Your task to perform on an android device: Go to network settings Image 0: 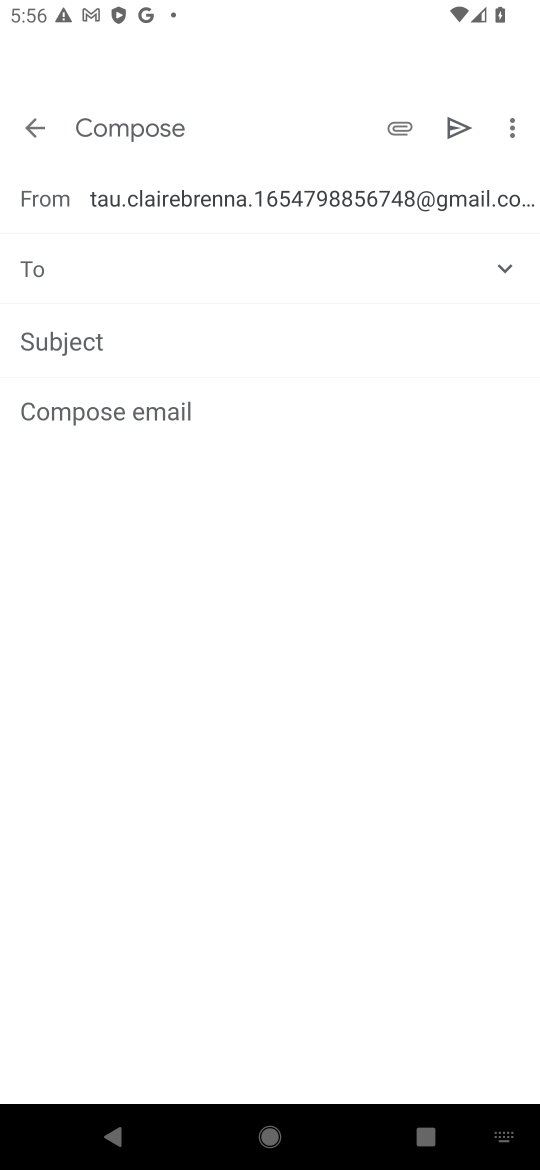
Step 0: press home button
Your task to perform on an android device: Go to network settings Image 1: 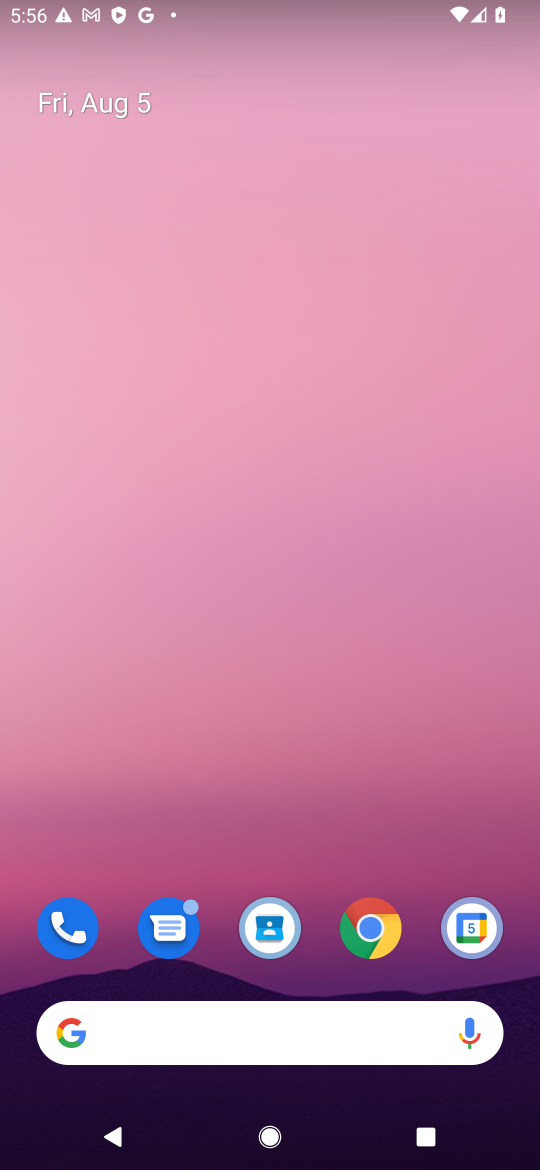
Step 1: drag from (238, 984) to (507, 978)
Your task to perform on an android device: Go to network settings Image 2: 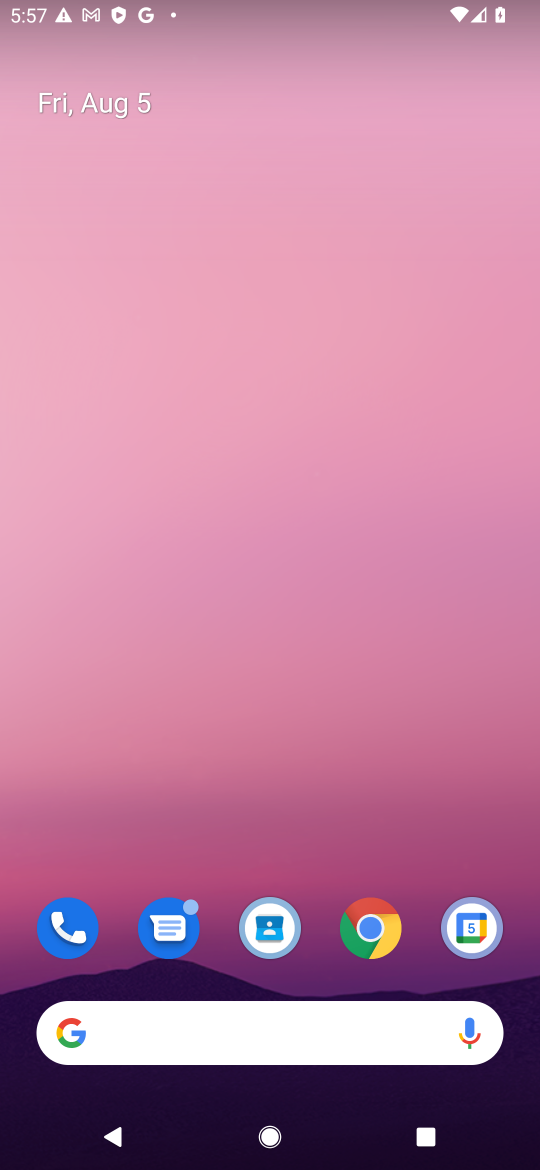
Step 2: drag from (282, 973) to (437, 7)
Your task to perform on an android device: Go to network settings Image 3: 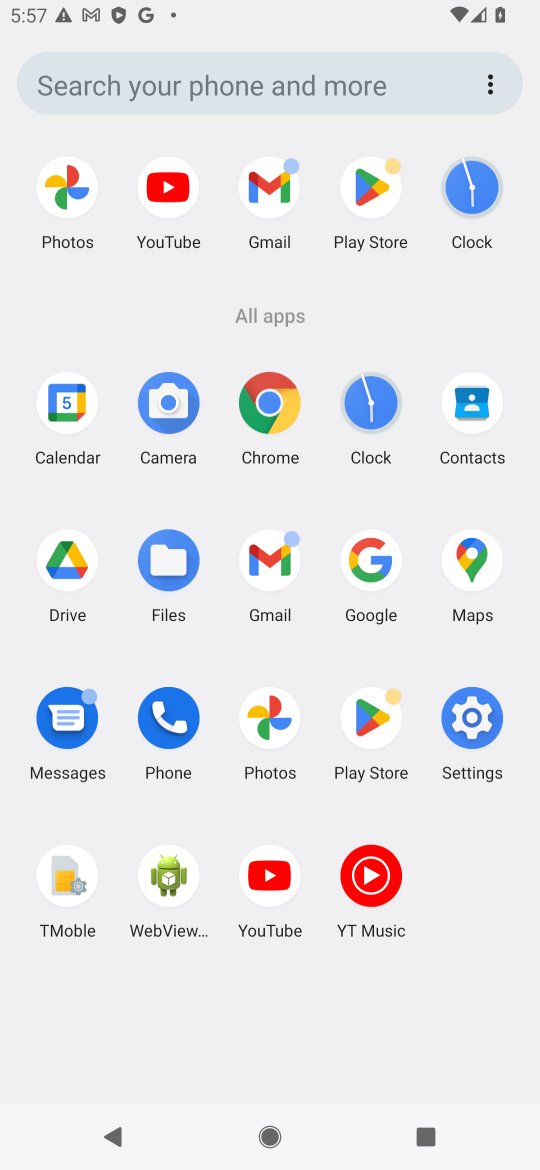
Step 3: click (453, 748)
Your task to perform on an android device: Go to network settings Image 4: 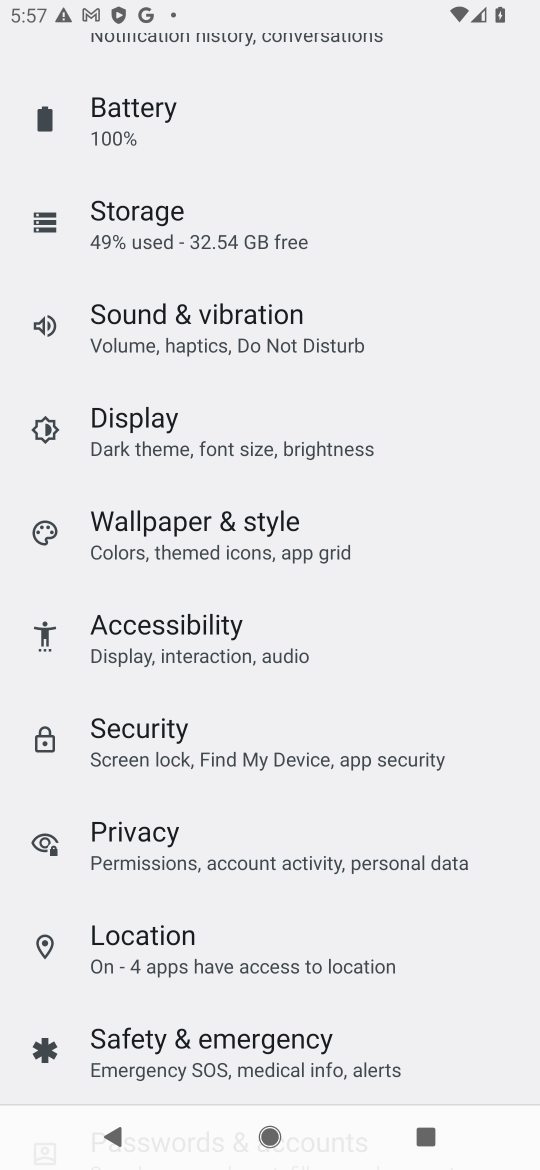
Step 4: drag from (275, 306) to (271, 957)
Your task to perform on an android device: Go to network settings Image 5: 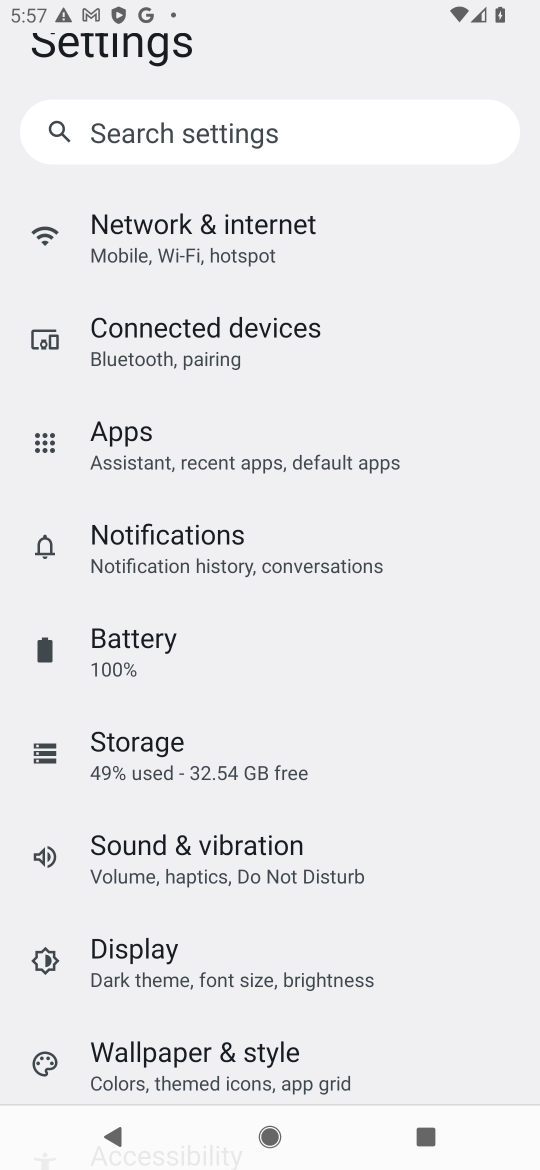
Step 5: click (210, 252)
Your task to perform on an android device: Go to network settings Image 6: 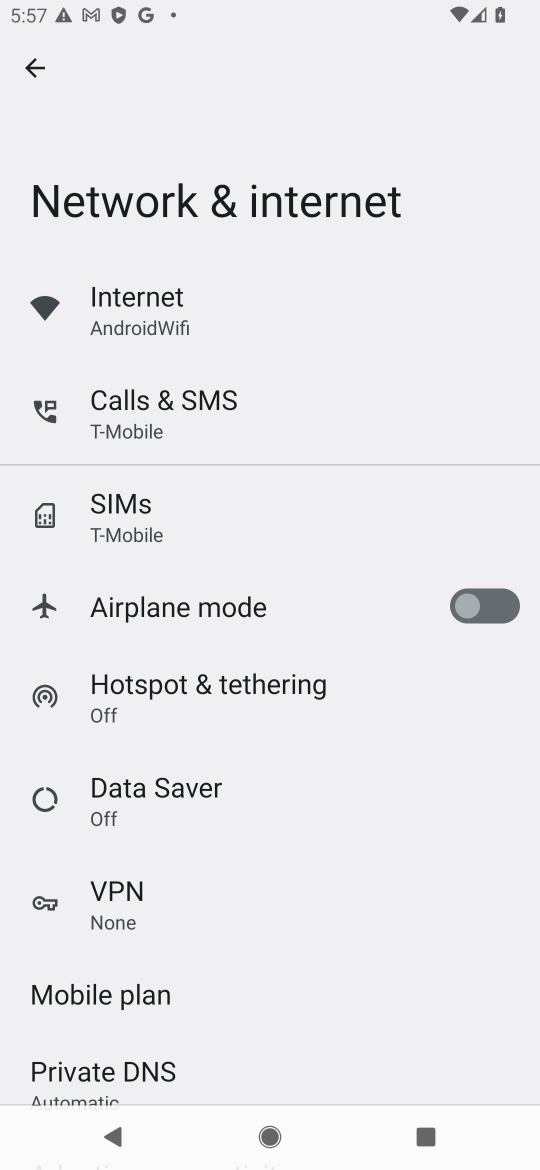
Step 6: click (202, 318)
Your task to perform on an android device: Go to network settings Image 7: 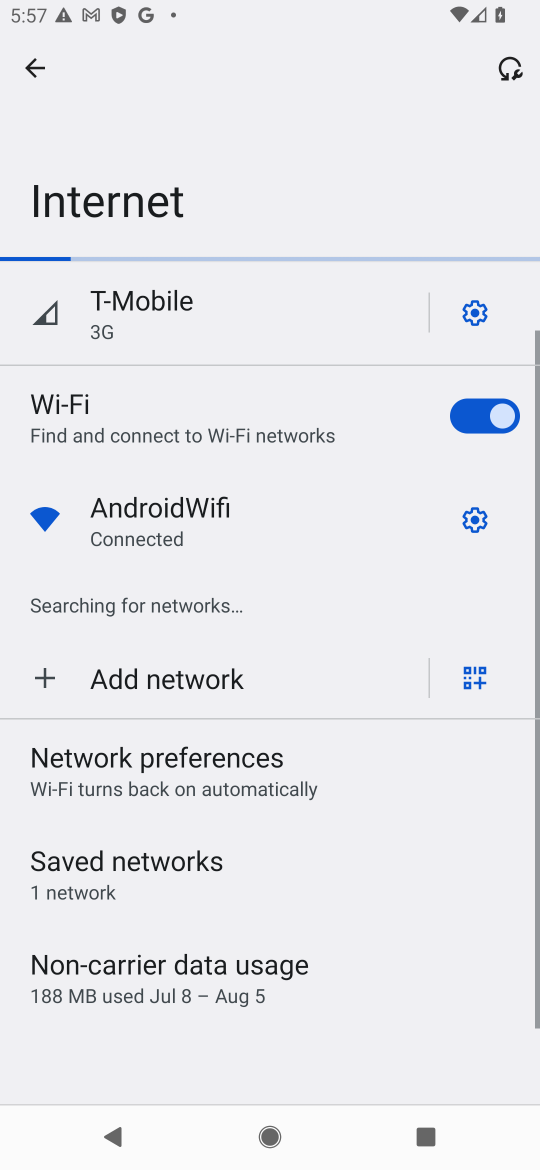
Step 7: task complete